Your task to perform on an android device: toggle javascript in the chrome app Image 0: 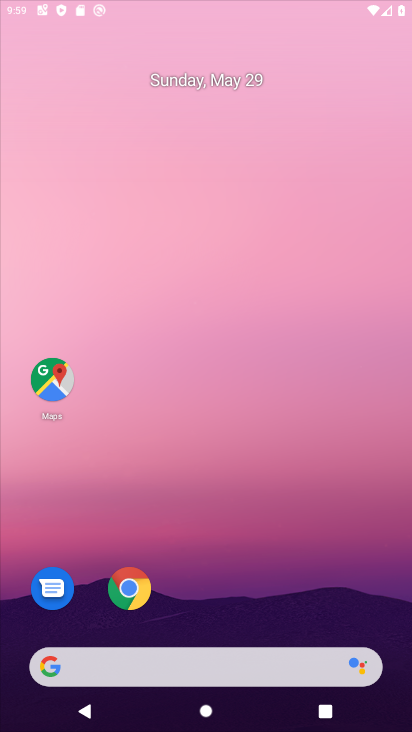
Step 0: drag from (241, 609) to (284, 61)
Your task to perform on an android device: toggle javascript in the chrome app Image 1: 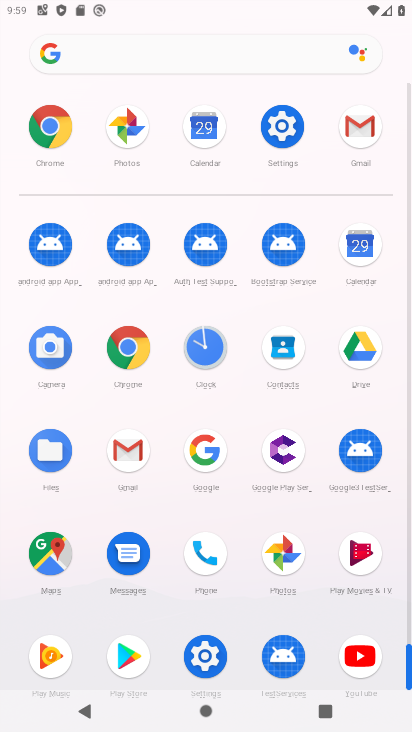
Step 1: click (136, 355)
Your task to perform on an android device: toggle javascript in the chrome app Image 2: 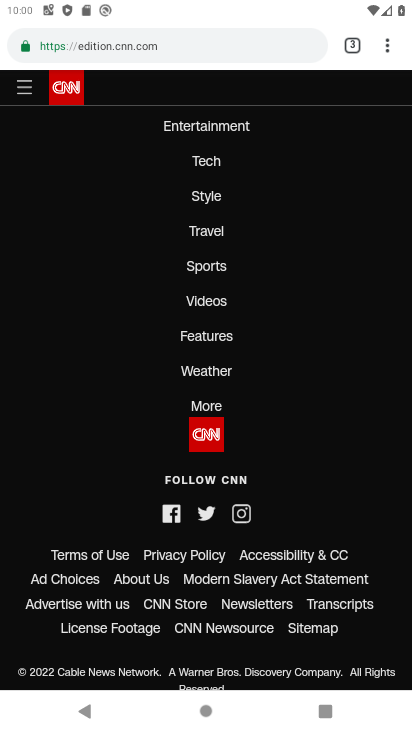
Step 2: click (390, 51)
Your task to perform on an android device: toggle javascript in the chrome app Image 3: 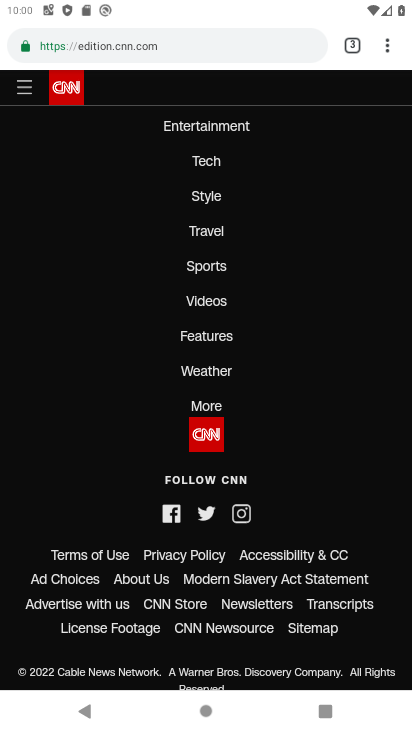
Step 3: click (384, 44)
Your task to perform on an android device: toggle javascript in the chrome app Image 4: 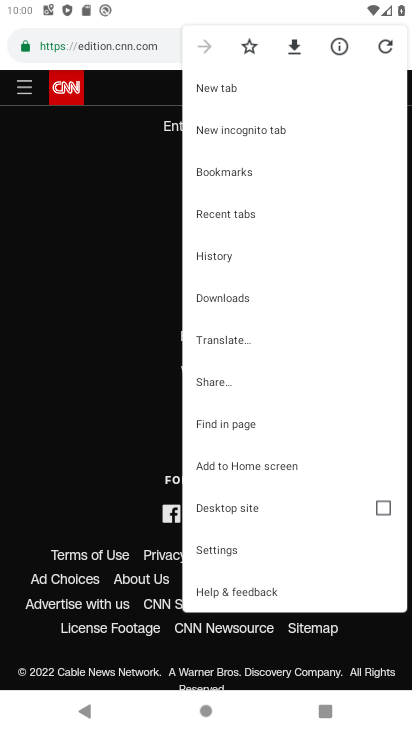
Step 4: click (235, 559)
Your task to perform on an android device: toggle javascript in the chrome app Image 5: 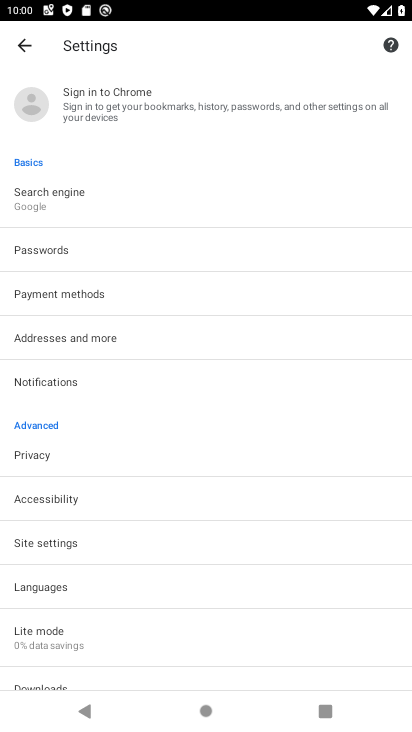
Step 5: click (71, 536)
Your task to perform on an android device: toggle javascript in the chrome app Image 6: 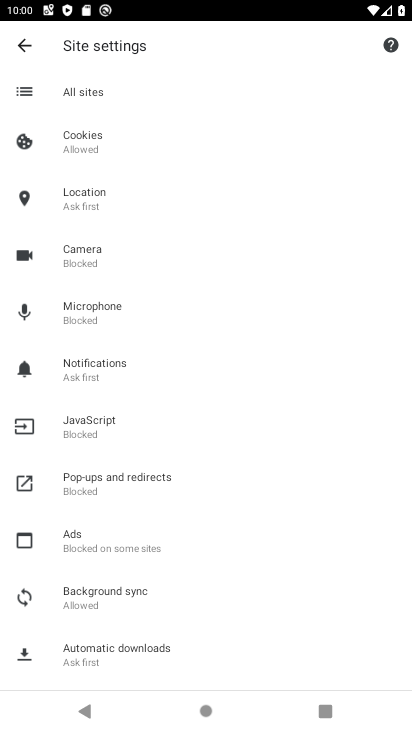
Step 6: click (120, 438)
Your task to perform on an android device: toggle javascript in the chrome app Image 7: 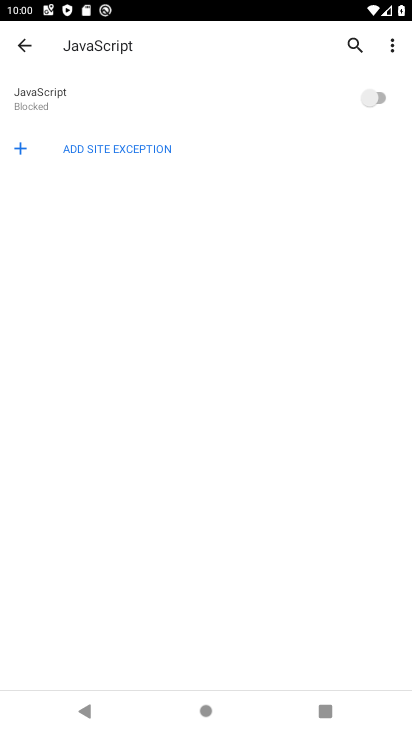
Step 7: click (365, 110)
Your task to perform on an android device: toggle javascript in the chrome app Image 8: 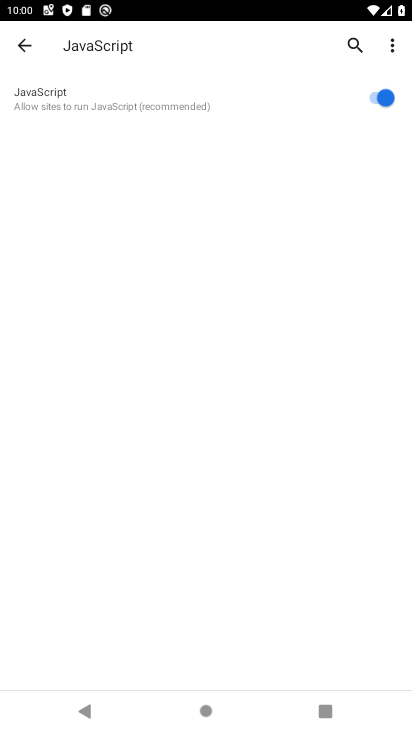
Step 8: task complete